Your task to perform on an android device: Open Google Chrome and click the shortcut for Amazon.com Image 0: 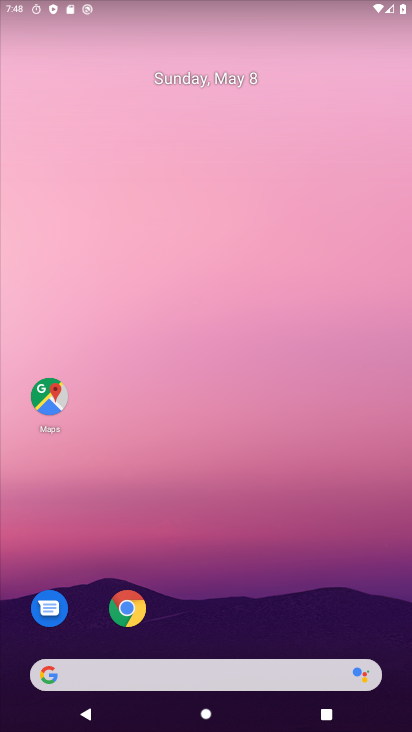
Step 0: click (134, 608)
Your task to perform on an android device: Open Google Chrome and click the shortcut for Amazon.com Image 1: 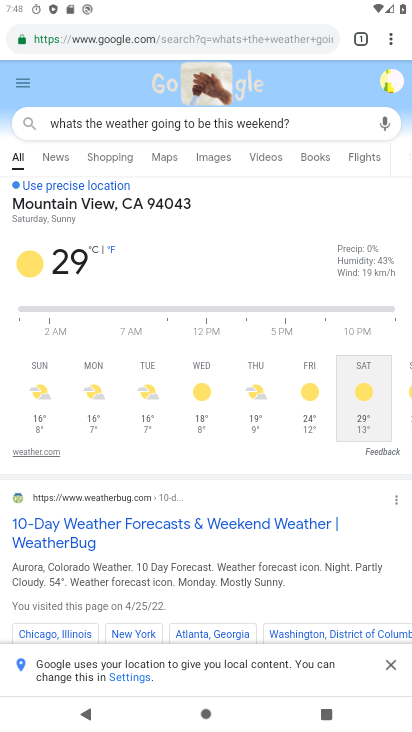
Step 1: click (363, 38)
Your task to perform on an android device: Open Google Chrome and click the shortcut for Amazon.com Image 2: 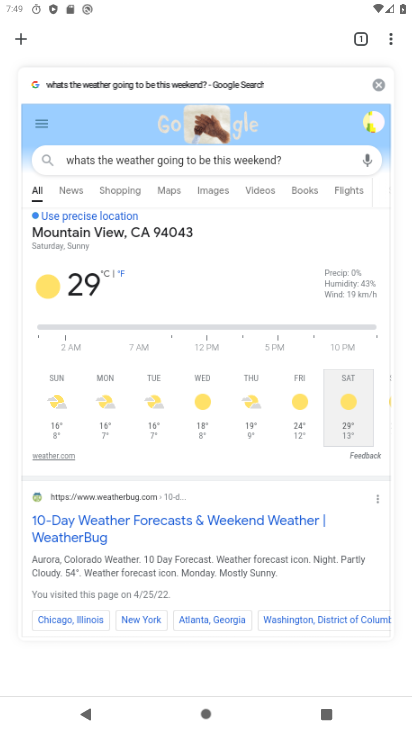
Step 2: click (19, 36)
Your task to perform on an android device: Open Google Chrome and click the shortcut for Amazon.com Image 3: 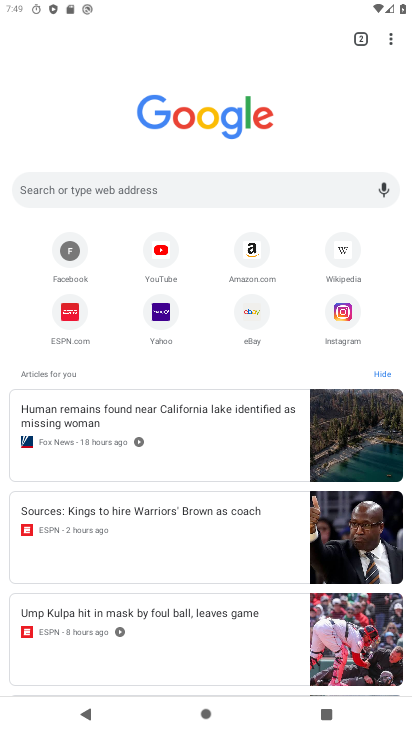
Step 3: click (246, 252)
Your task to perform on an android device: Open Google Chrome and click the shortcut for Amazon.com Image 4: 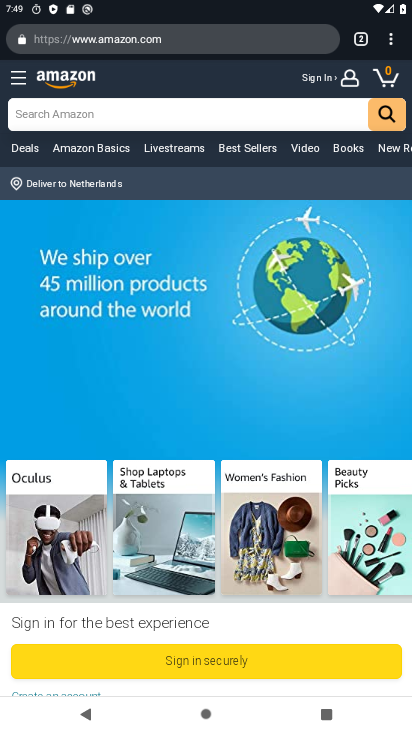
Step 4: task complete